Your task to perform on an android device: Go to internet settings Image 0: 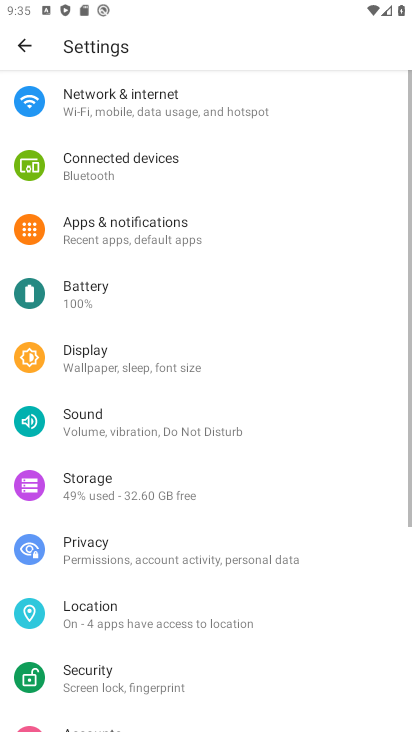
Step 0: press home button
Your task to perform on an android device: Go to internet settings Image 1: 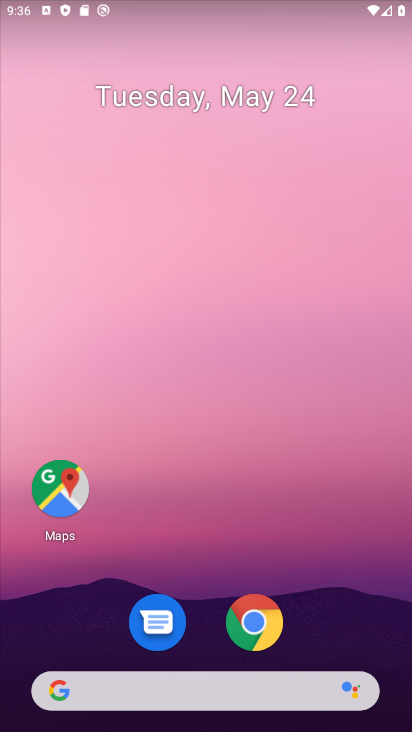
Step 1: drag from (234, 706) to (337, 240)
Your task to perform on an android device: Go to internet settings Image 2: 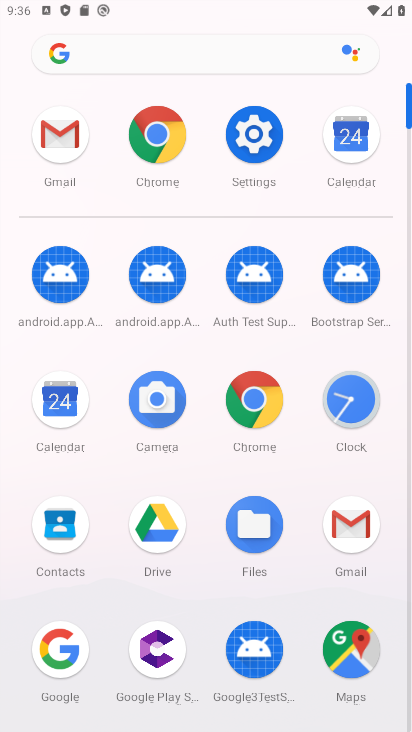
Step 2: click (233, 169)
Your task to perform on an android device: Go to internet settings Image 3: 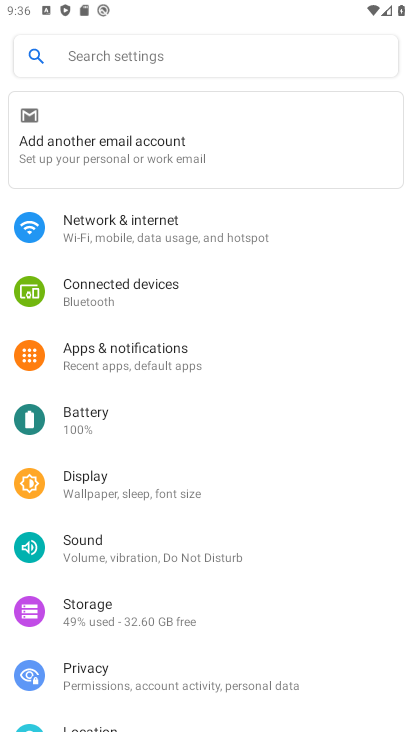
Step 3: click (109, 240)
Your task to perform on an android device: Go to internet settings Image 4: 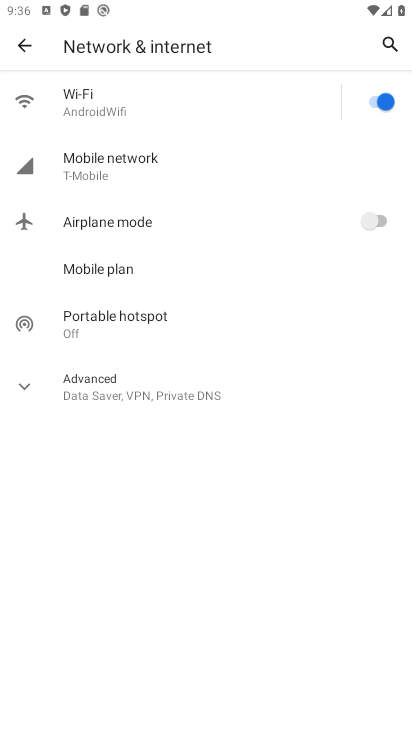
Step 4: task complete